Your task to perform on an android device: Search for sushi restaurants on Maps Image 0: 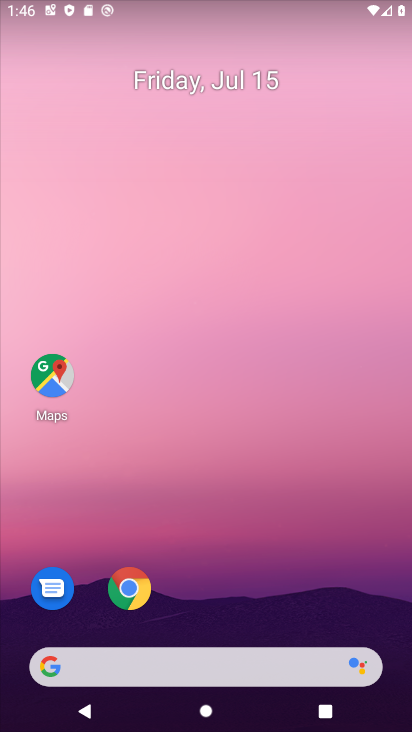
Step 0: click (53, 379)
Your task to perform on an android device: Search for sushi restaurants on Maps Image 1: 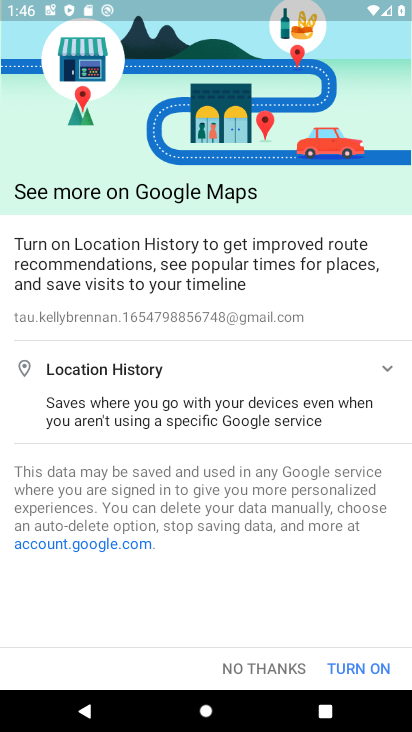
Step 1: click (379, 659)
Your task to perform on an android device: Search for sushi restaurants on Maps Image 2: 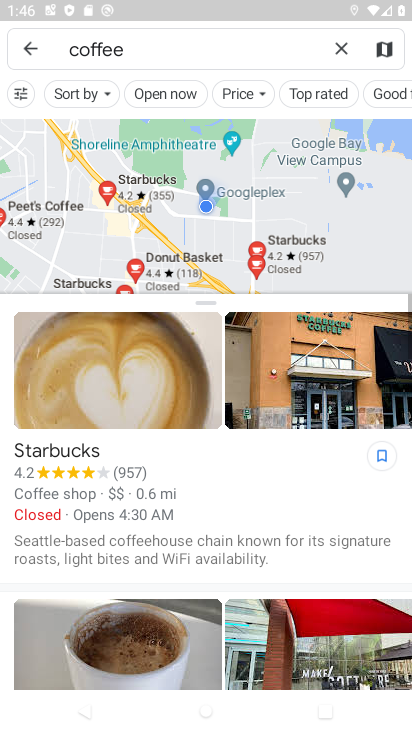
Step 2: click (337, 50)
Your task to perform on an android device: Search for sushi restaurants on Maps Image 3: 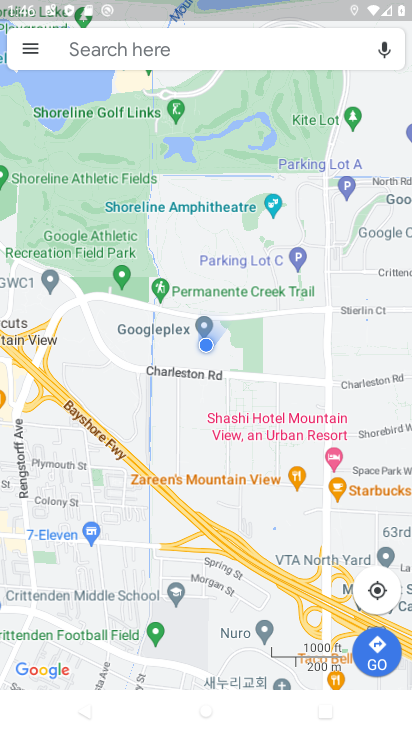
Step 3: click (192, 50)
Your task to perform on an android device: Search for sushi restaurants on Maps Image 4: 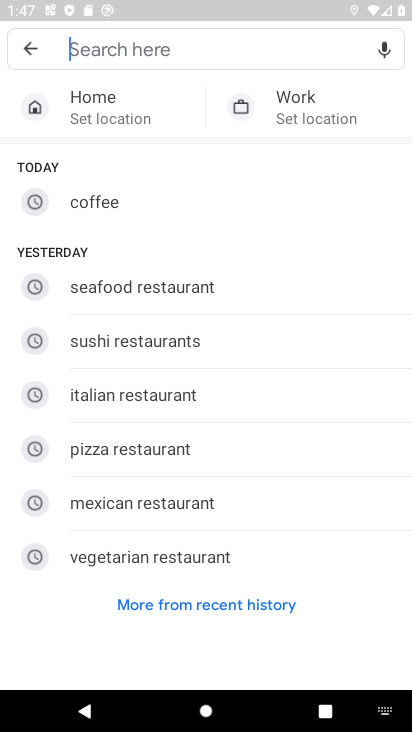
Step 4: type "sushi restaurants"
Your task to perform on an android device: Search for sushi restaurants on Maps Image 5: 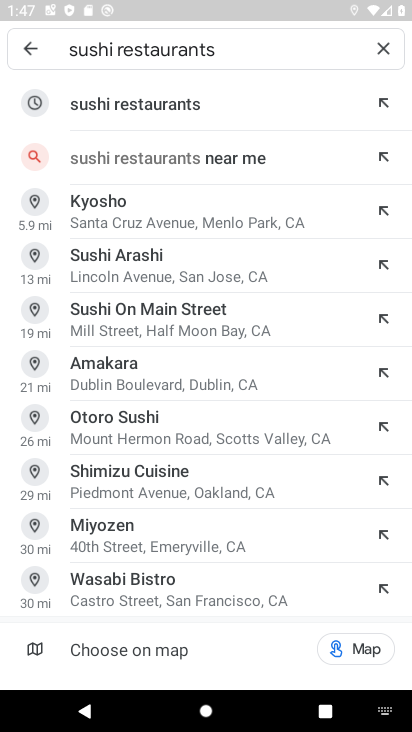
Step 5: click (284, 95)
Your task to perform on an android device: Search for sushi restaurants on Maps Image 6: 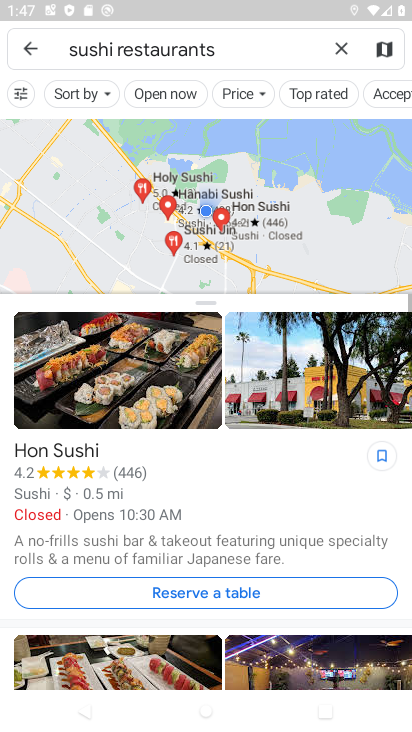
Step 6: task complete